Your task to perform on an android device: turn smart compose on in the gmail app Image 0: 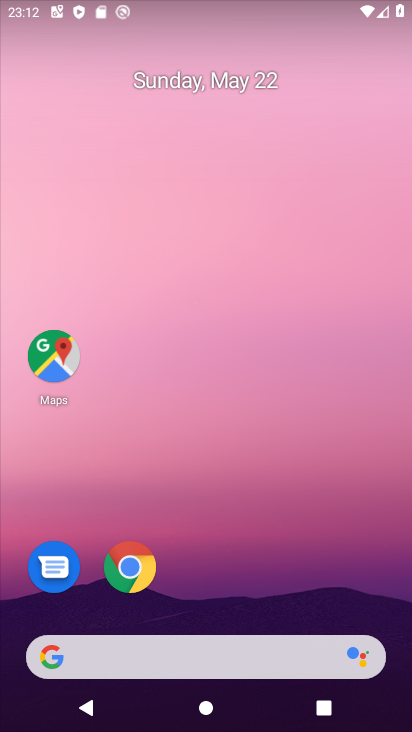
Step 0: drag from (291, 545) to (243, 6)
Your task to perform on an android device: turn smart compose on in the gmail app Image 1: 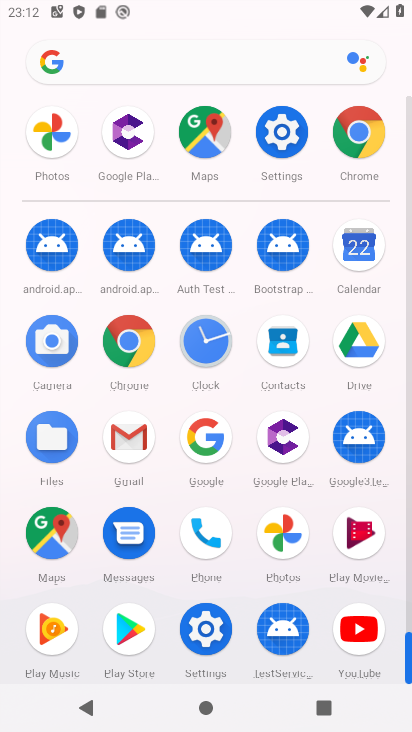
Step 1: click (128, 430)
Your task to perform on an android device: turn smart compose on in the gmail app Image 2: 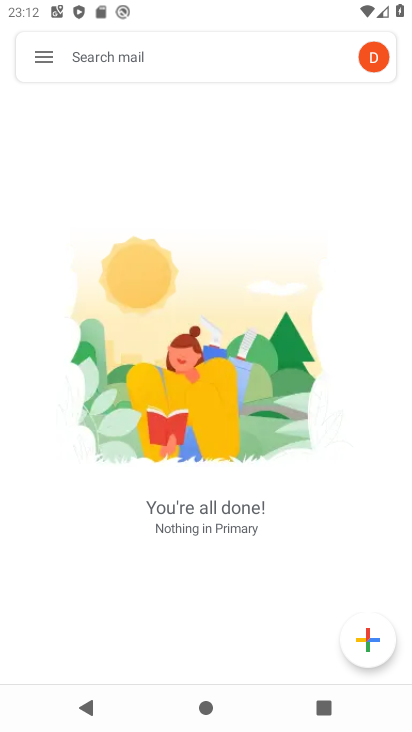
Step 2: click (37, 47)
Your task to perform on an android device: turn smart compose on in the gmail app Image 3: 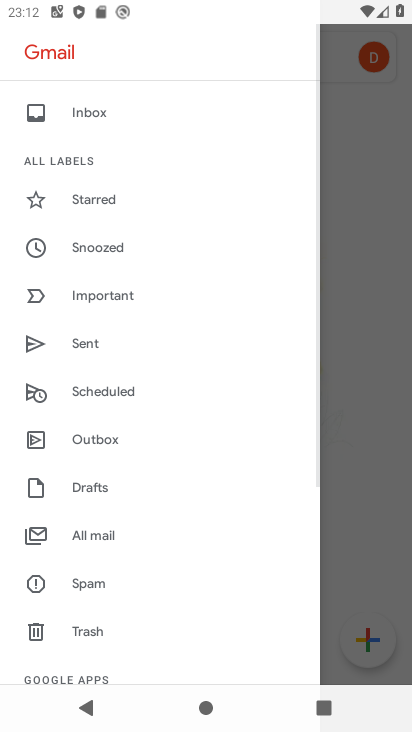
Step 3: drag from (140, 553) to (190, 73)
Your task to perform on an android device: turn smart compose on in the gmail app Image 4: 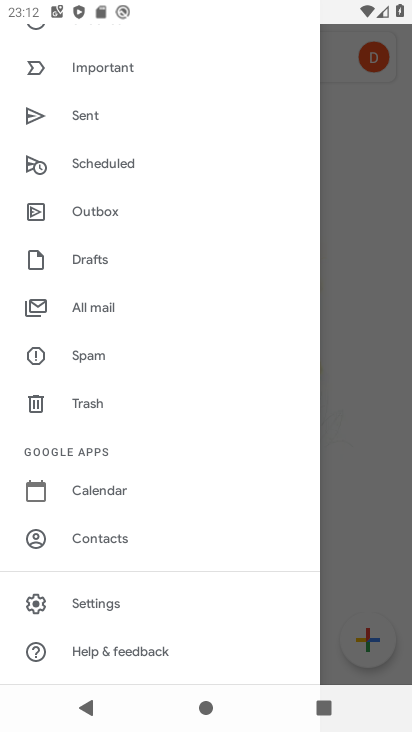
Step 4: click (114, 607)
Your task to perform on an android device: turn smart compose on in the gmail app Image 5: 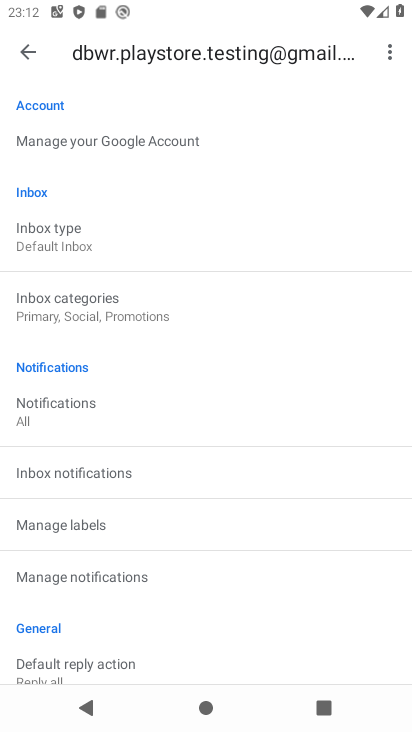
Step 5: drag from (261, 561) to (254, 173)
Your task to perform on an android device: turn smart compose on in the gmail app Image 6: 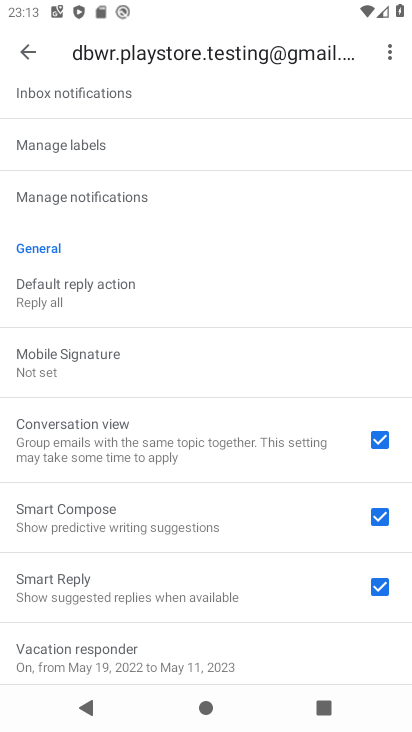
Step 6: click (376, 510)
Your task to perform on an android device: turn smart compose on in the gmail app Image 7: 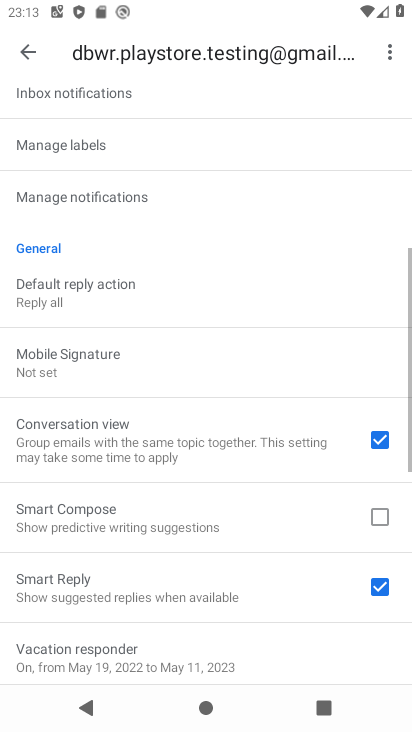
Step 7: click (376, 510)
Your task to perform on an android device: turn smart compose on in the gmail app Image 8: 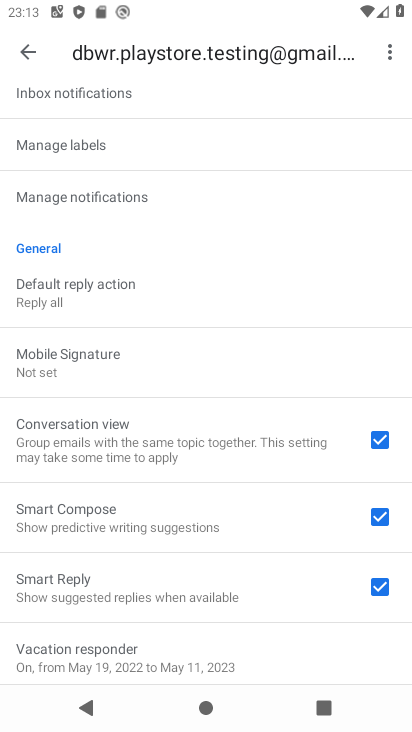
Step 8: task complete